Your task to perform on an android device: empty trash in the gmail app Image 0: 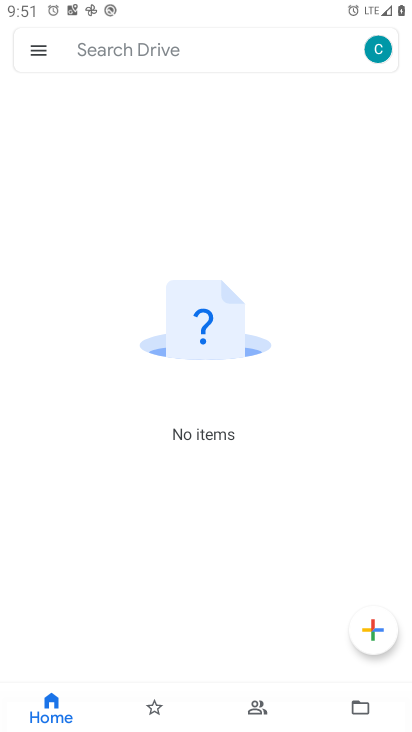
Step 0: press home button
Your task to perform on an android device: empty trash in the gmail app Image 1: 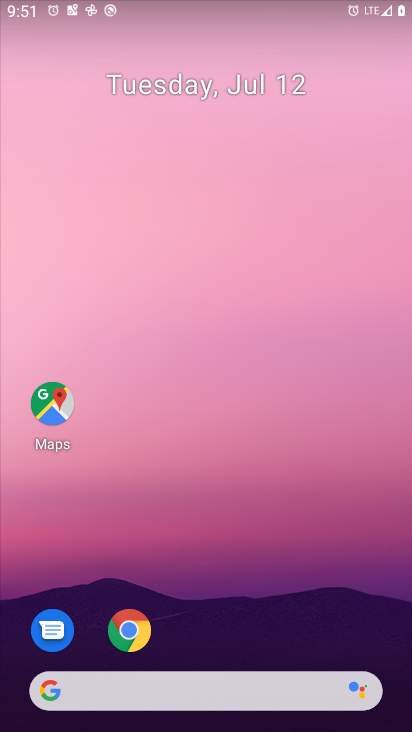
Step 1: drag from (246, 601) to (238, 74)
Your task to perform on an android device: empty trash in the gmail app Image 2: 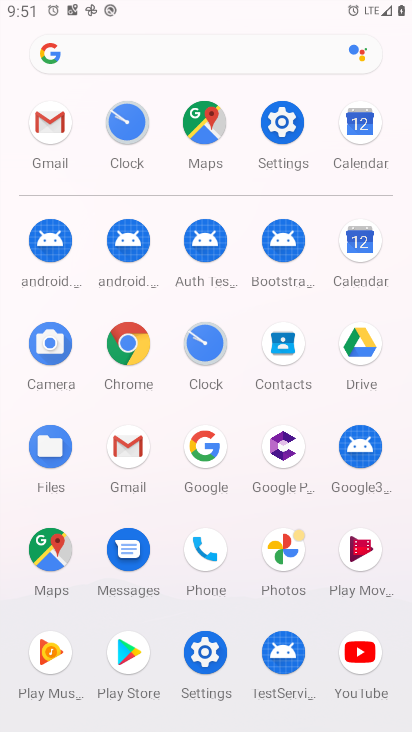
Step 2: click (134, 441)
Your task to perform on an android device: empty trash in the gmail app Image 3: 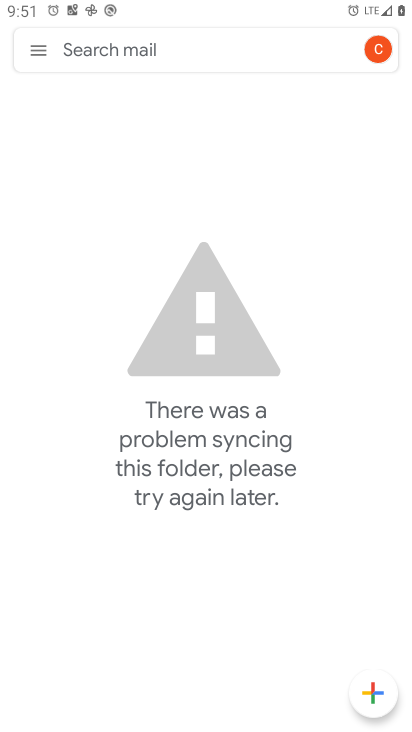
Step 3: click (39, 57)
Your task to perform on an android device: empty trash in the gmail app Image 4: 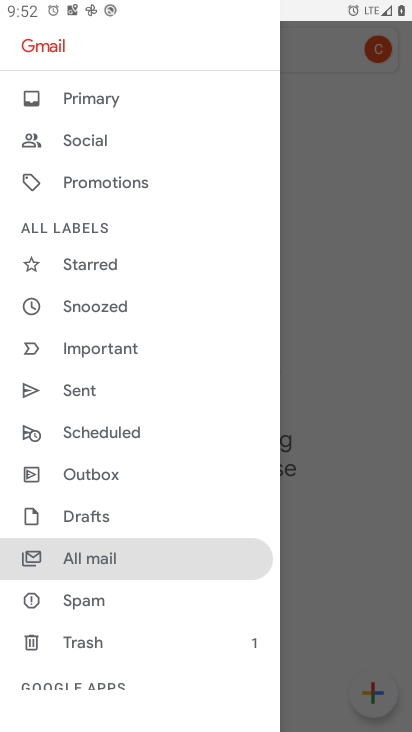
Step 4: click (102, 643)
Your task to perform on an android device: empty trash in the gmail app Image 5: 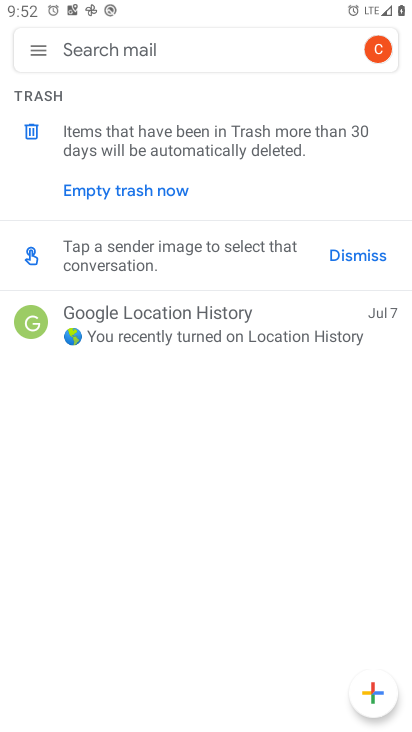
Step 5: click (178, 325)
Your task to perform on an android device: empty trash in the gmail app Image 6: 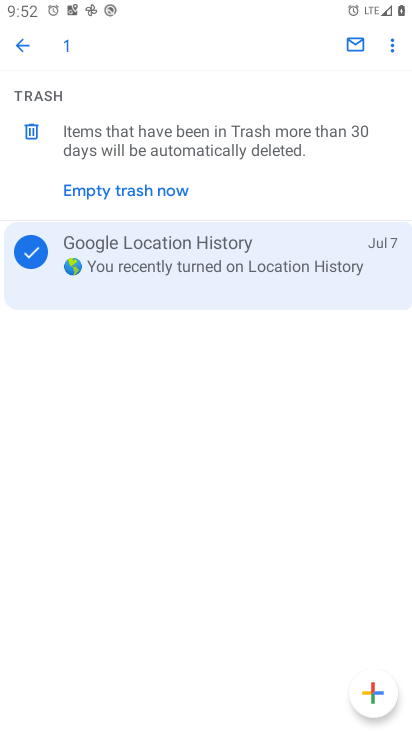
Step 6: click (36, 121)
Your task to perform on an android device: empty trash in the gmail app Image 7: 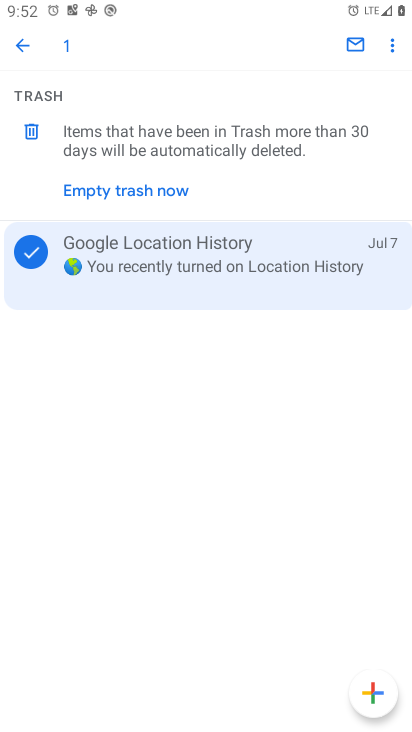
Step 7: click (26, 138)
Your task to perform on an android device: empty trash in the gmail app Image 8: 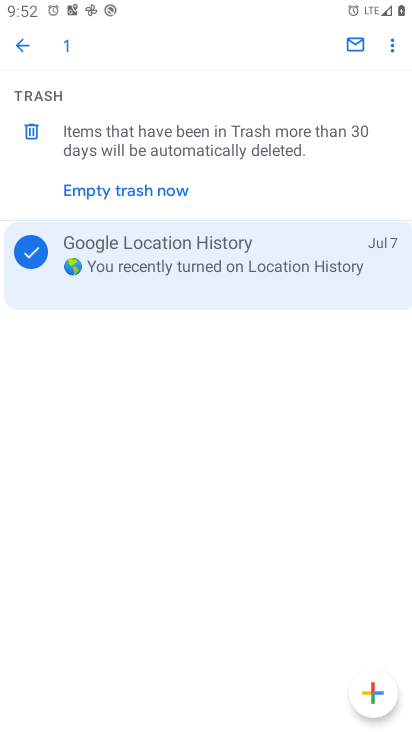
Step 8: click (32, 133)
Your task to perform on an android device: empty trash in the gmail app Image 9: 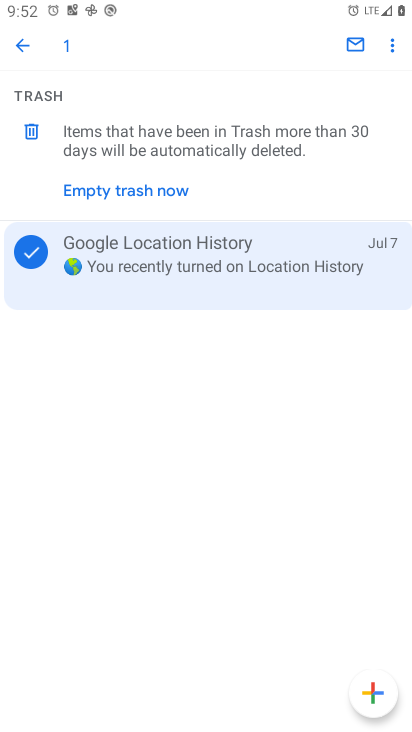
Step 9: click (106, 189)
Your task to perform on an android device: empty trash in the gmail app Image 10: 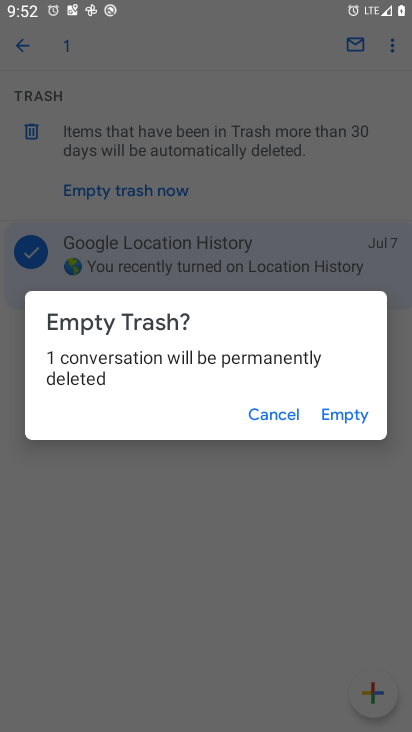
Step 10: click (356, 414)
Your task to perform on an android device: empty trash in the gmail app Image 11: 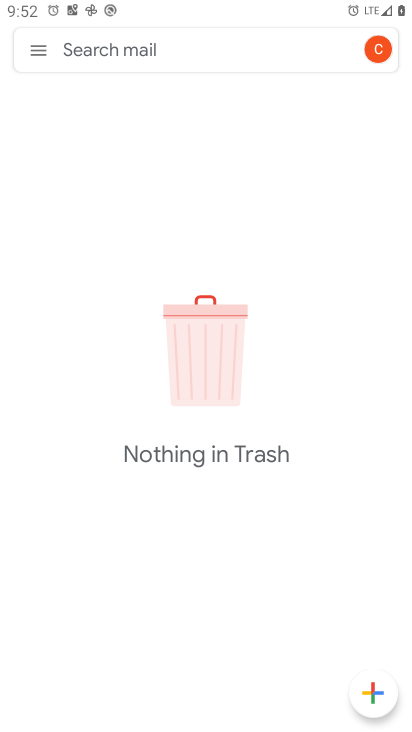
Step 11: task complete